Your task to perform on an android device: turn on data saver in the chrome app Image 0: 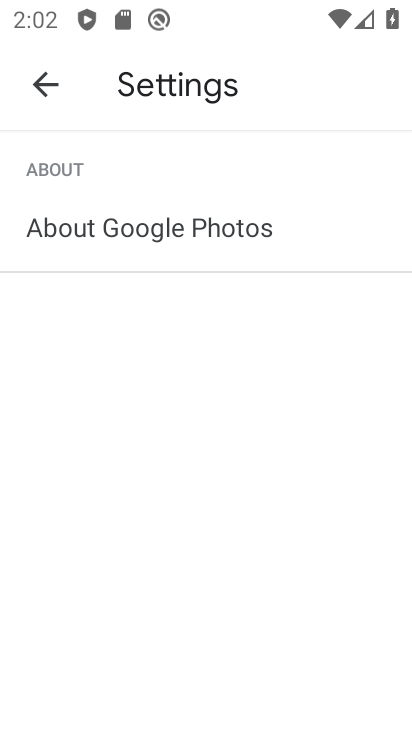
Step 0: click (48, 96)
Your task to perform on an android device: turn on data saver in the chrome app Image 1: 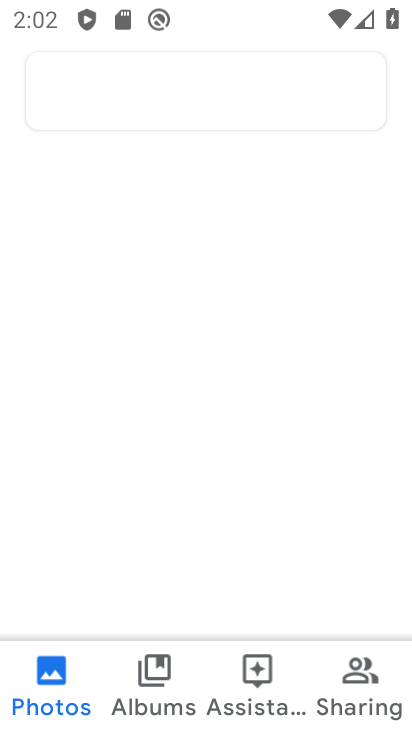
Step 1: press home button
Your task to perform on an android device: turn on data saver in the chrome app Image 2: 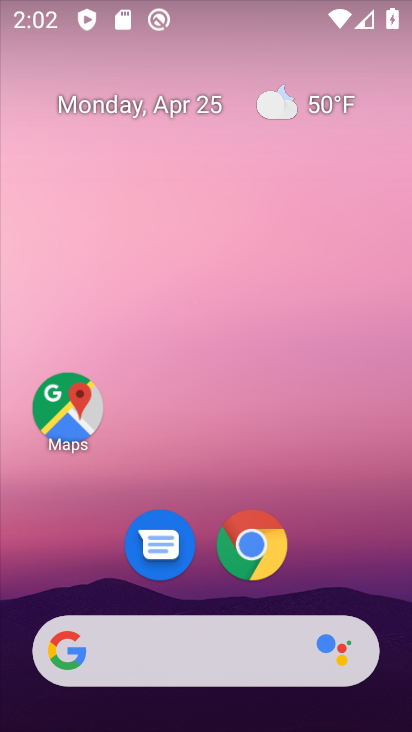
Step 2: click (263, 544)
Your task to perform on an android device: turn on data saver in the chrome app Image 3: 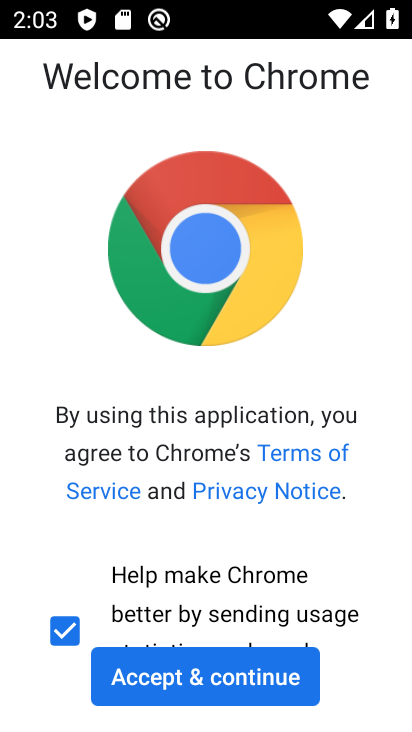
Step 3: click (211, 677)
Your task to perform on an android device: turn on data saver in the chrome app Image 4: 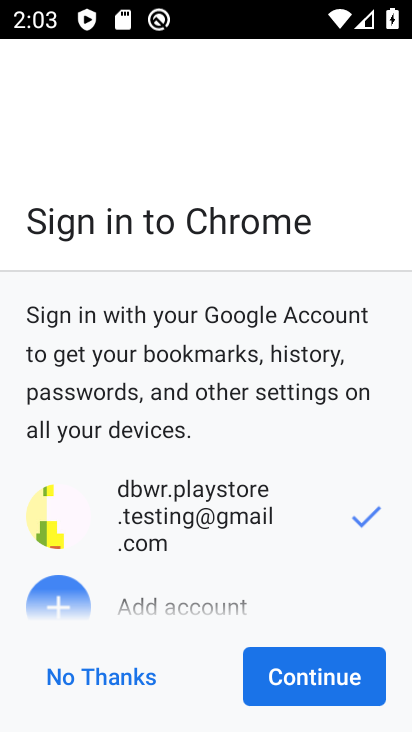
Step 4: click (311, 701)
Your task to perform on an android device: turn on data saver in the chrome app Image 5: 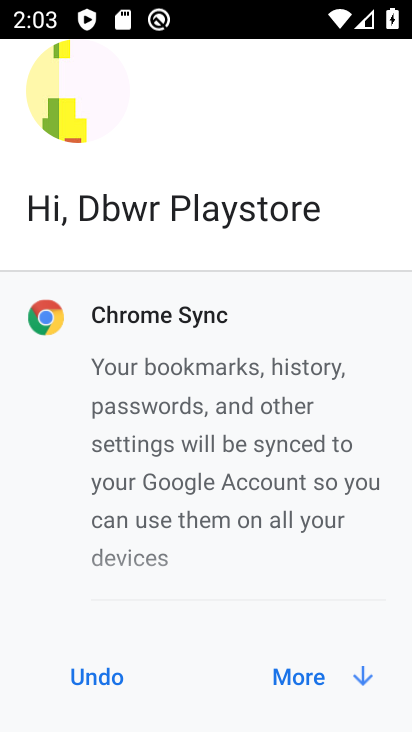
Step 5: click (310, 673)
Your task to perform on an android device: turn on data saver in the chrome app Image 6: 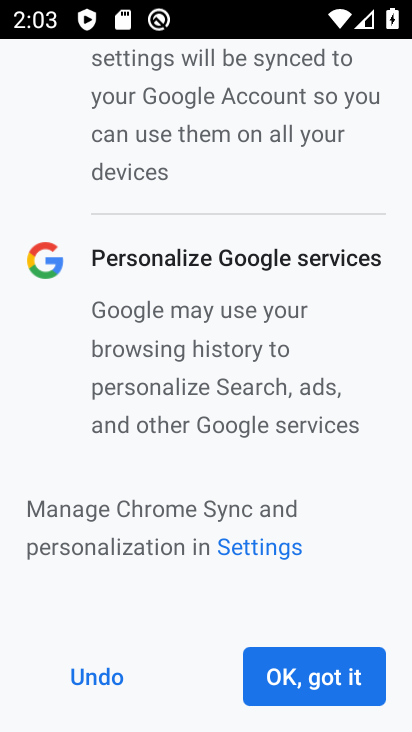
Step 6: click (324, 686)
Your task to perform on an android device: turn on data saver in the chrome app Image 7: 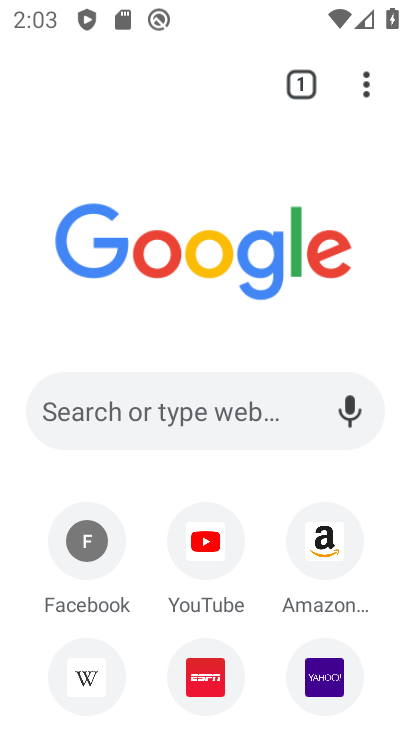
Step 7: click (366, 85)
Your task to perform on an android device: turn on data saver in the chrome app Image 8: 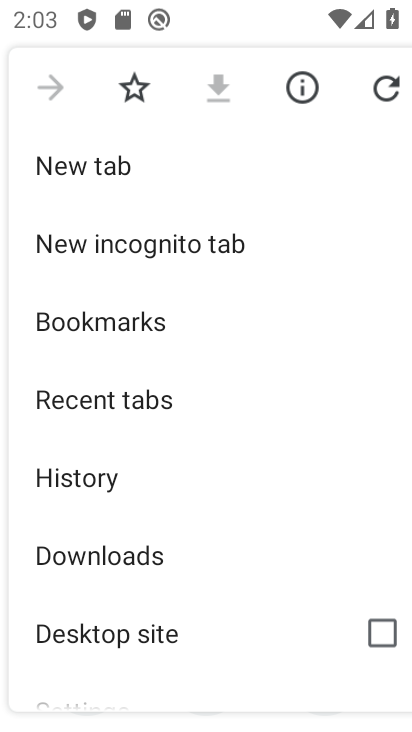
Step 8: drag from (268, 579) to (201, 219)
Your task to perform on an android device: turn on data saver in the chrome app Image 9: 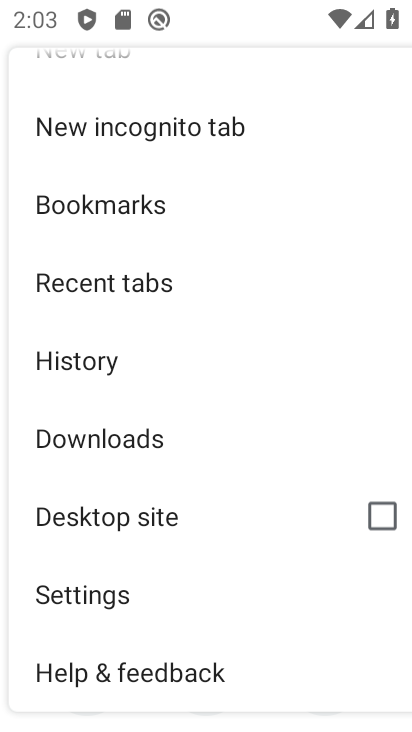
Step 9: click (129, 588)
Your task to perform on an android device: turn on data saver in the chrome app Image 10: 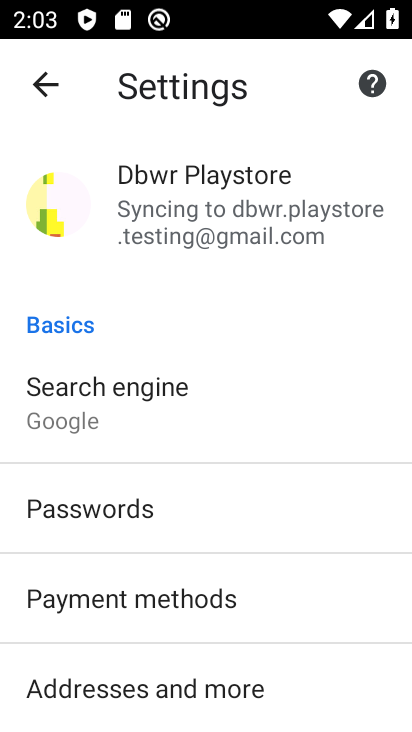
Step 10: drag from (285, 612) to (242, 195)
Your task to perform on an android device: turn on data saver in the chrome app Image 11: 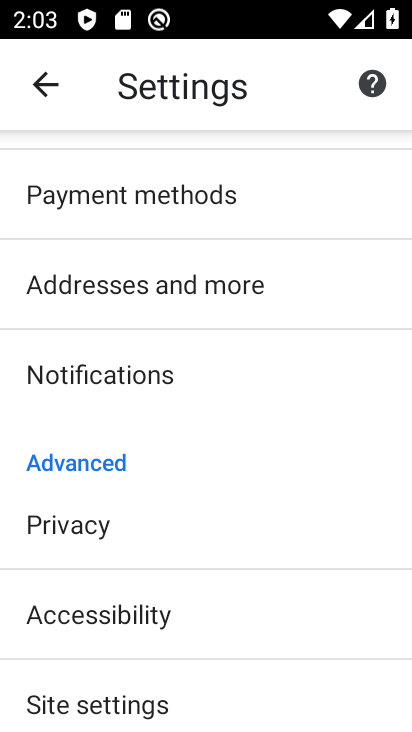
Step 11: drag from (253, 664) to (237, 300)
Your task to perform on an android device: turn on data saver in the chrome app Image 12: 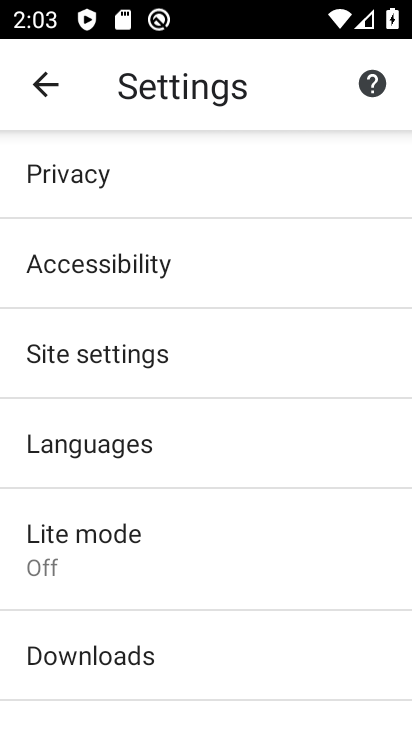
Step 12: click (154, 523)
Your task to perform on an android device: turn on data saver in the chrome app Image 13: 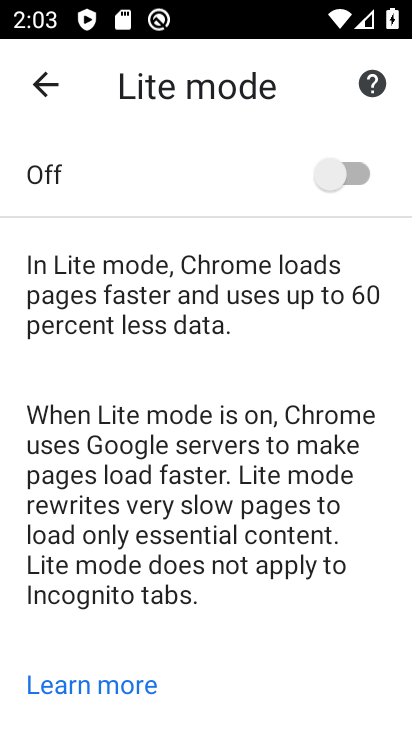
Step 13: click (328, 177)
Your task to perform on an android device: turn on data saver in the chrome app Image 14: 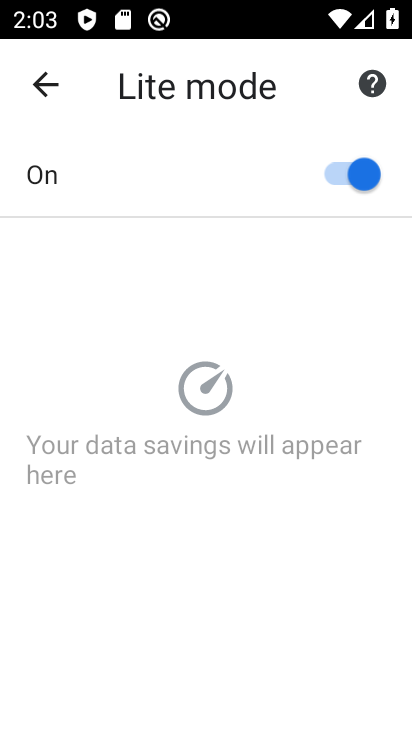
Step 14: task complete